Your task to perform on an android device: Go to privacy settings Image 0: 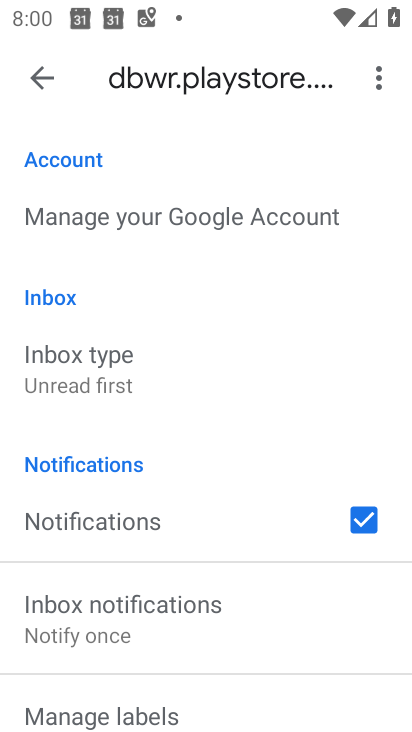
Step 0: press home button
Your task to perform on an android device: Go to privacy settings Image 1: 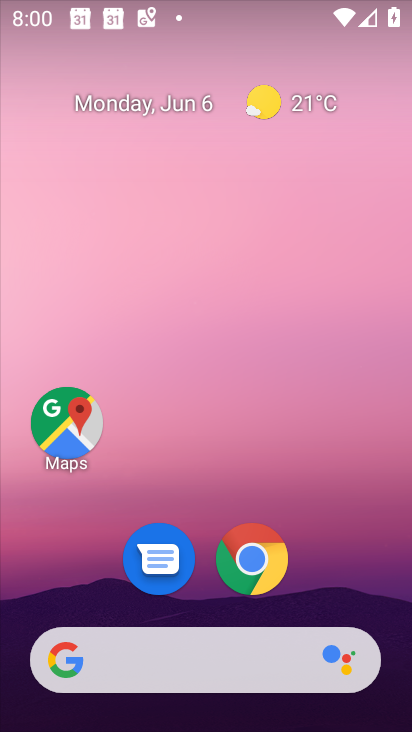
Step 1: drag from (193, 712) to (128, 112)
Your task to perform on an android device: Go to privacy settings Image 2: 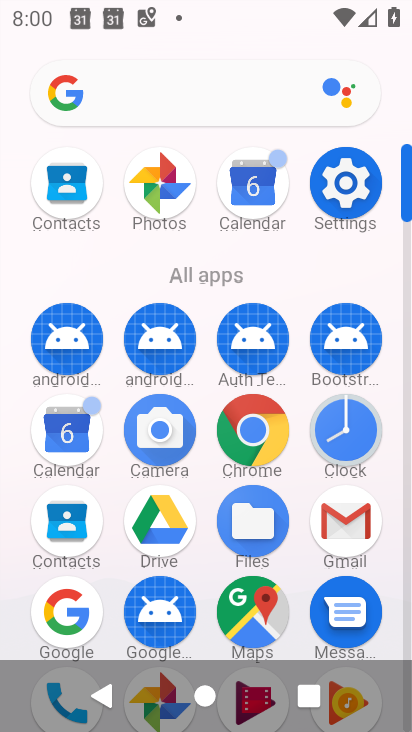
Step 2: click (345, 182)
Your task to perform on an android device: Go to privacy settings Image 3: 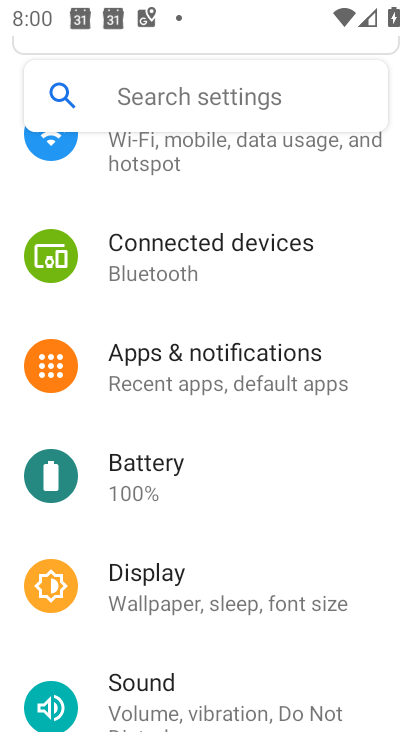
Step 3: drag from (186, 691) to (176, 241)
Your task to perform on an android device: Go to privacy settings Image 4: 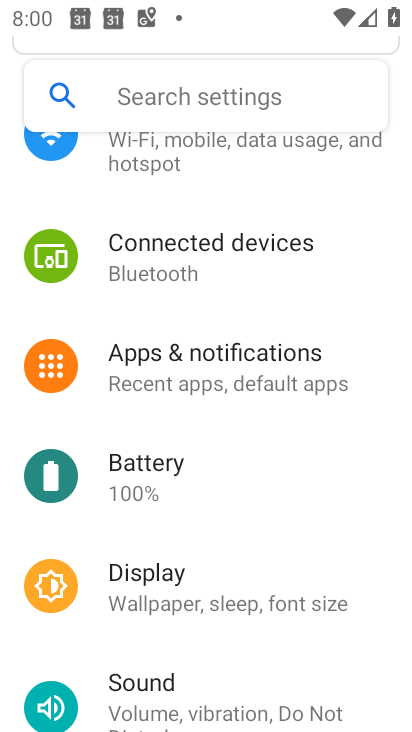
Step 4: drag from (260, 665) to (244, 242)
Your task to perform on an android device: Go to privacy settings Image 5: 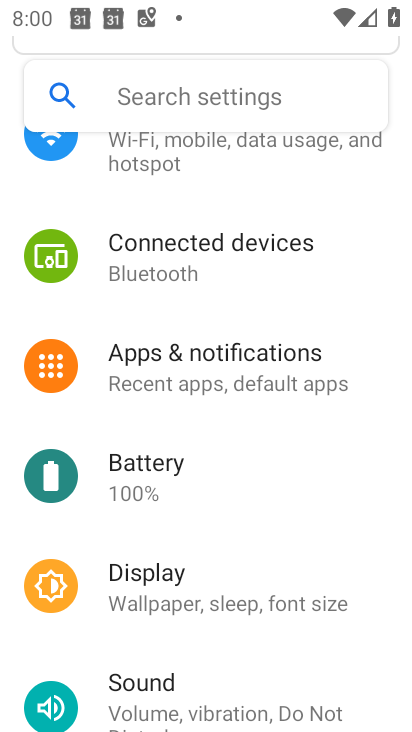
Step 5: drag from (219, 658) to (201, 164)
Your task to perform on an android device: Go to privacy settings Image 6: 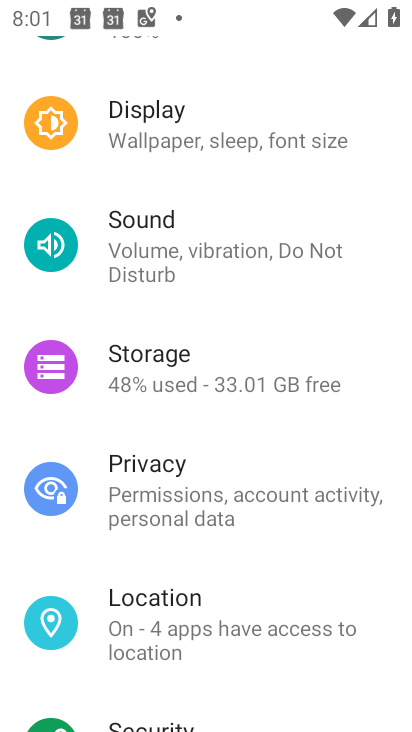
Step 6: click (175, 471)
Your task to perform on an android device: Go to privacy settings Image 7: 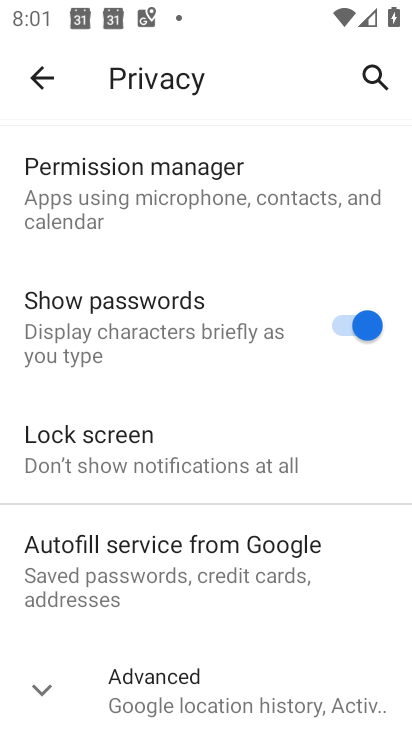
Step 7: task complete